Your task to perform on an android device: check battery use Image 0: 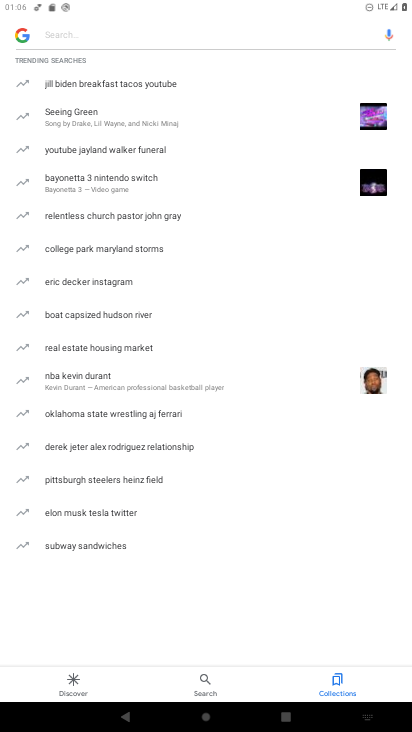
Step 0: press back button
Your task to perform on an android device: check battery use Image 1: 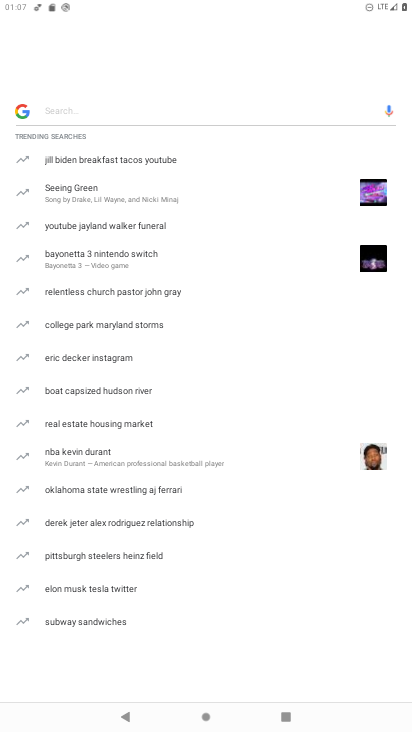
Step 1: press back button
Your task to perform on an android device: check battery use Image 2: 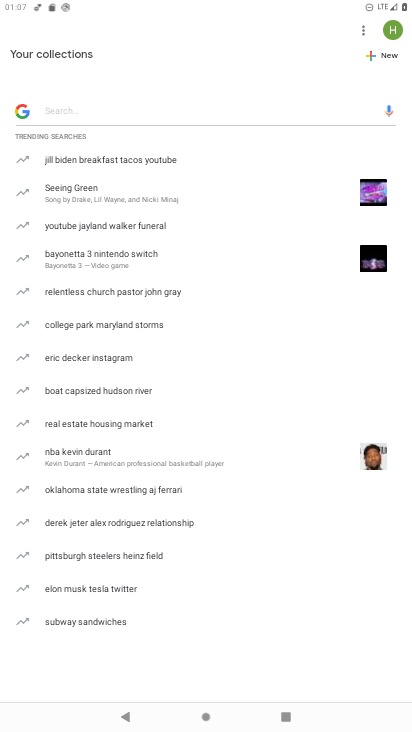
Step 2: press back button
Your task to perform on an android device: check battery use Image 3: 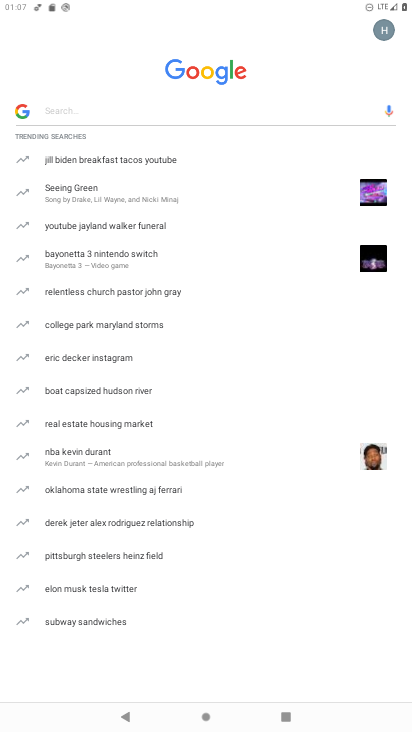
Step 3: press back button
Your task to perform on an android device: check battery use Image 4: 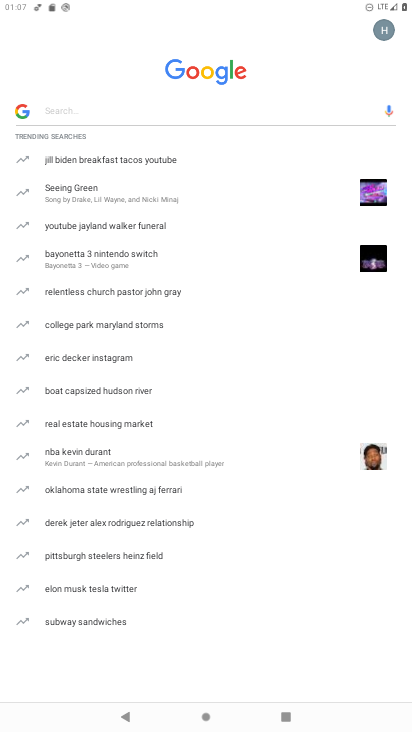
Step 4: press back button
Your task to perform on an android device: check battery use Image 5: 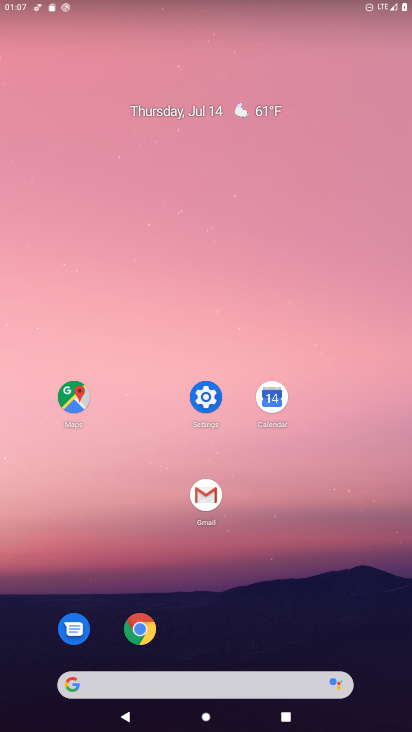
Step 5: click (214, 399)
Your task to perform on an android device: check battery use Image 6: 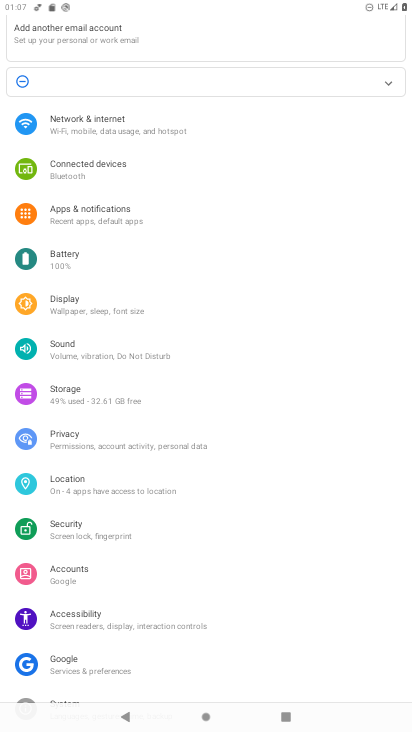
Step 6: click (60, 251)
Your task to perform on an android device: check battery use Image 7: 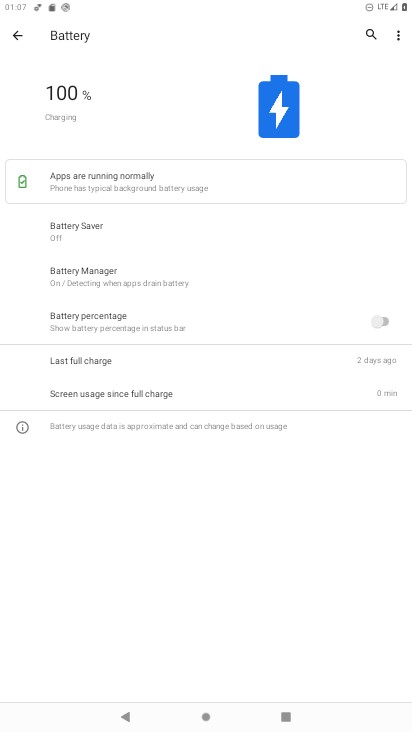
Step 7: click (395, 32)
Your task to perform on an android device: check battery use Image 8: 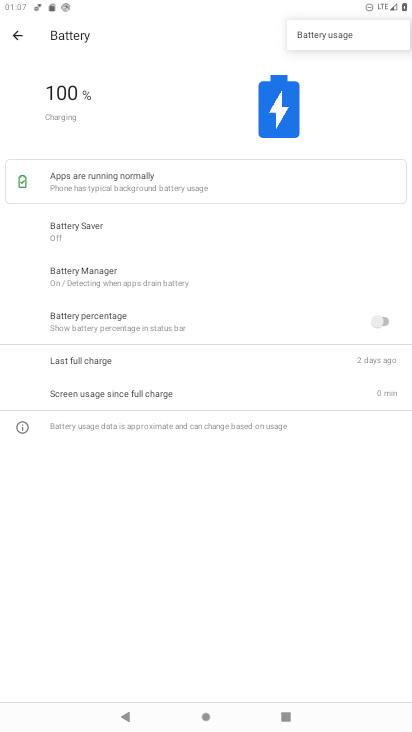
Step 8: click (338, 31)
Your task to perform on an android device: check battery use Image 9: 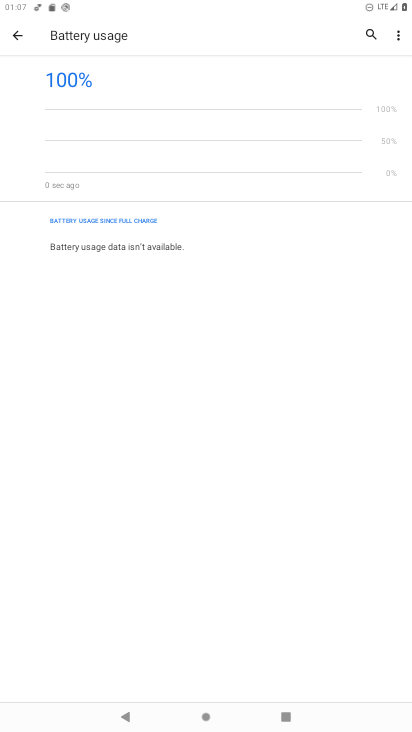
Step 9: task complete